Your task to perform on an android device: What's the weather today? Image 0: 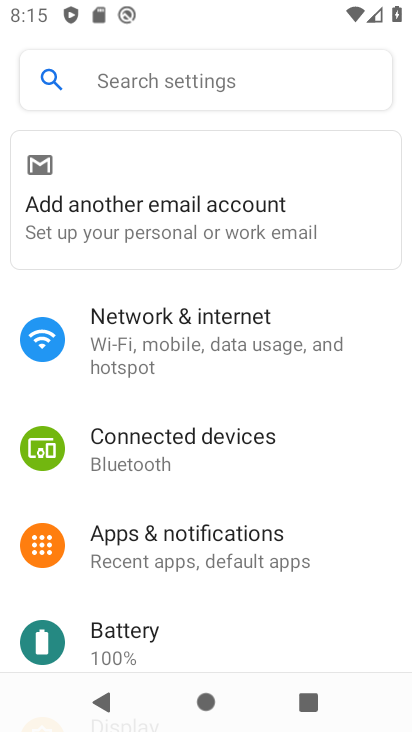
Step 0: press home button
Your task to perform on an android device: What's the weather today? Image 1: 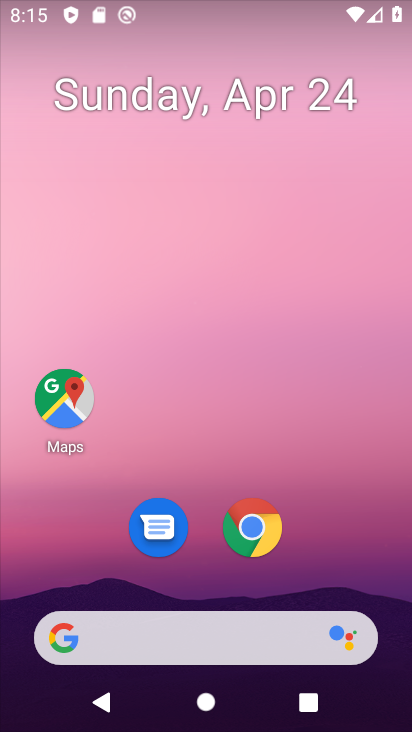
Step 1: click (197, 638)
Your task to perform on an android device: What's the weather today? Image 2: 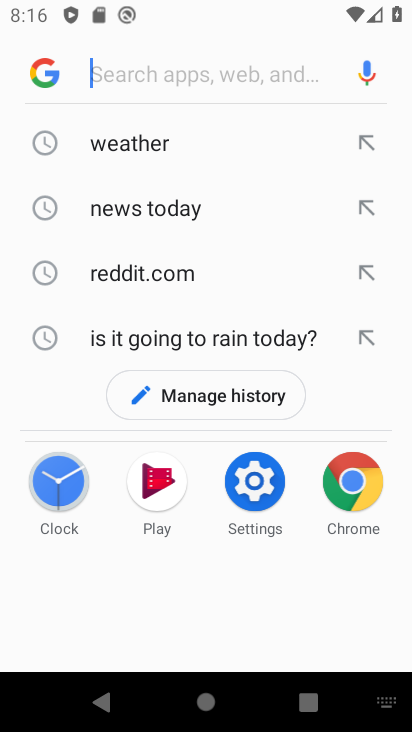
Step 2: click (166, 145)
Your task to perform on an android device: What's the weather today? Image 3: 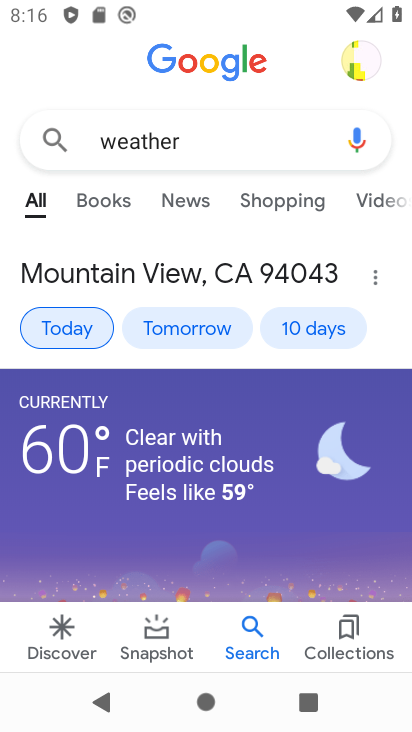
Step 3: task complete